Your task to perform on an android device: Go to settings Image 0: 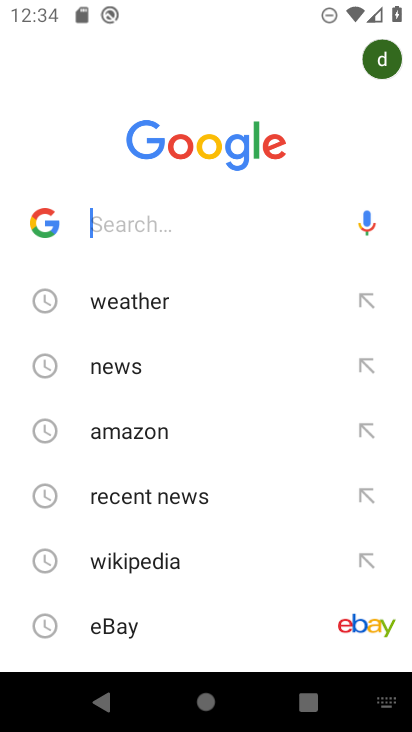
Step 0: press home button
Your task to perform on an android device: Go to settings Image 1: 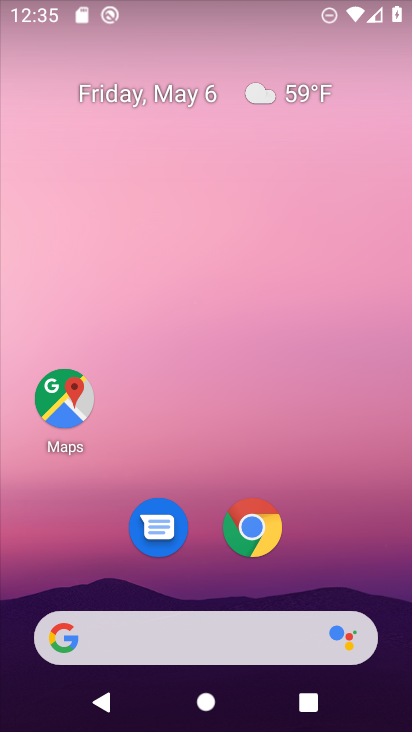
Step 1: drag from (295, 547) to (232, 52)
Your task to perform on an android device: Go to settings Image 2: 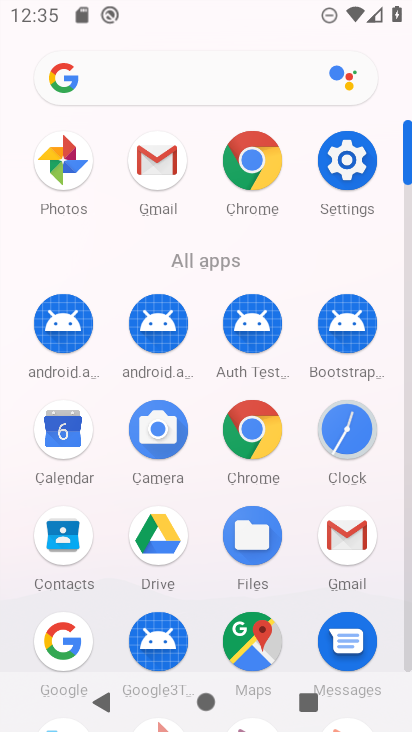
Step 2: click (343, 158)
Your task to perform on an android device: Go to settings Image 3: 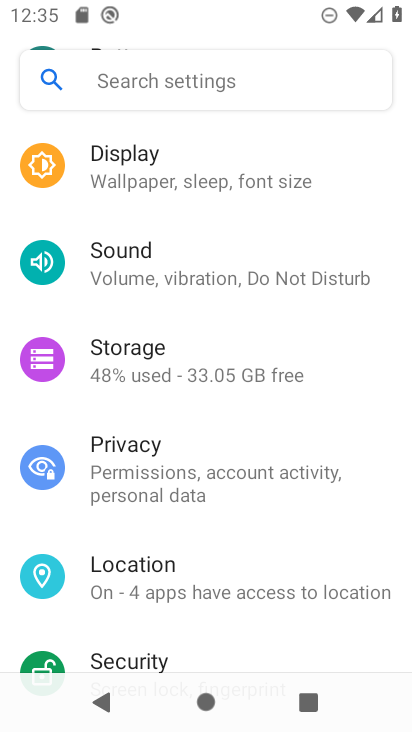
Step 3: task complete